Your task to perform on an android device: change the clock style Image 0: 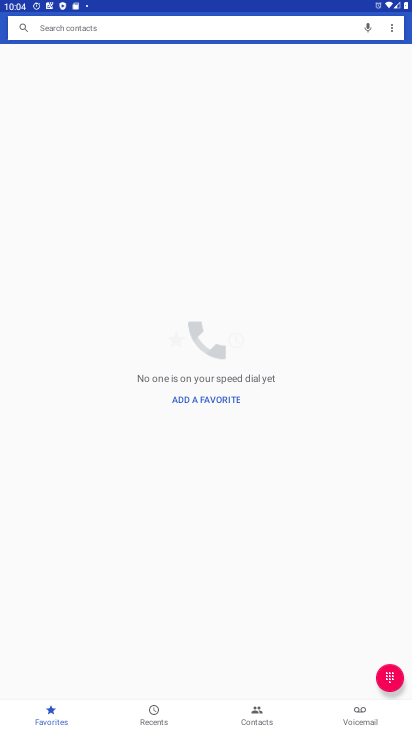
Step 0: press home button
Your task to perform on an android device: change the clock style Image 1: 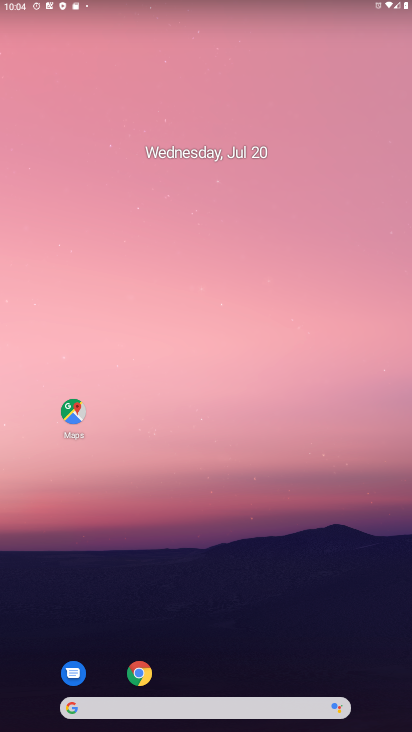
Step 1: drag from (215, 721) to (196, 169)
Your task to perform on an android device: change the clock style Image 2: 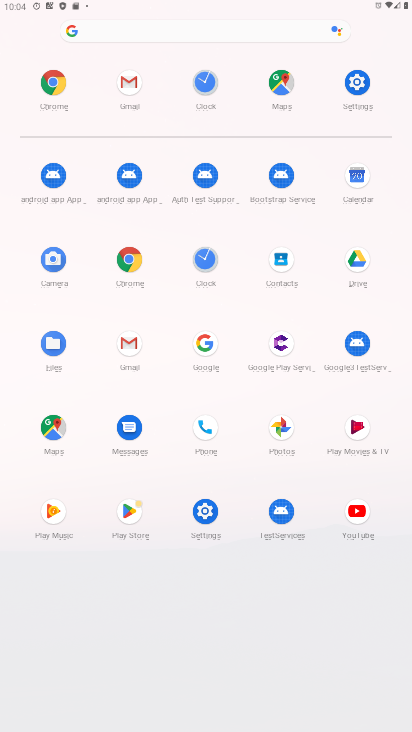
Step 2: click (208, 259)
Your task to perform on an android device: change the clock style Image 3: 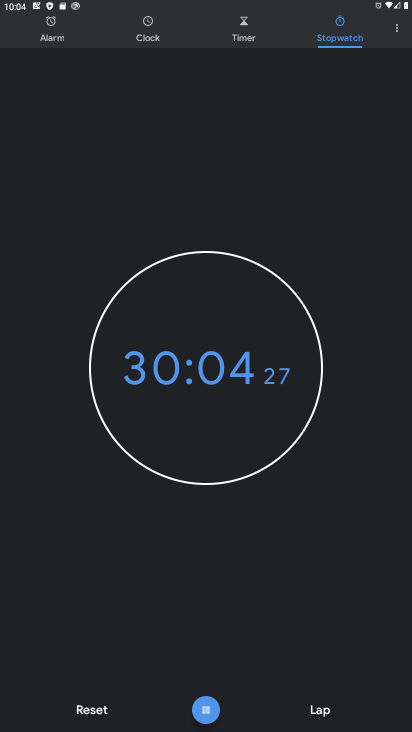
Step 3: click (399, 33)
Your task to perform on an android device: change the clock style Image 4: 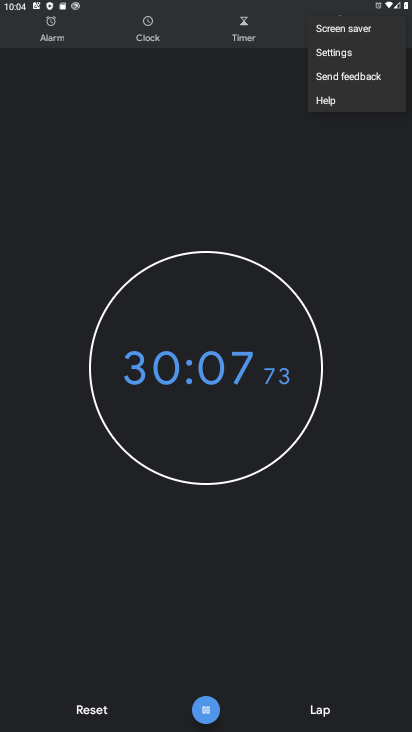
Step 4: click (334, 51)
Your task to perform on an android device: change the clock style Image 5: 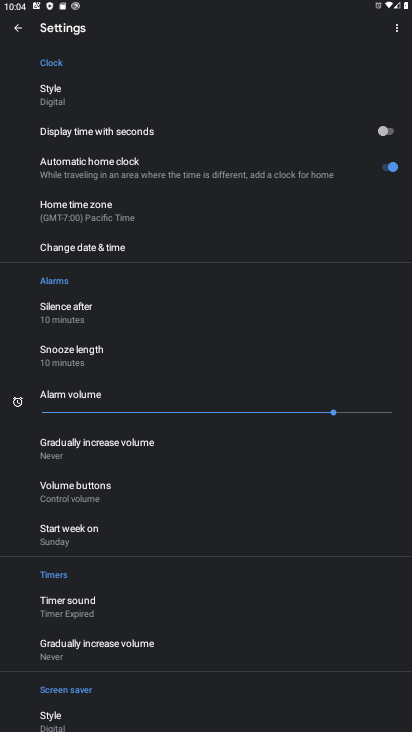
Step 5: click (50, 99)
Your task to perform on an android device: change the clock style Image 6: 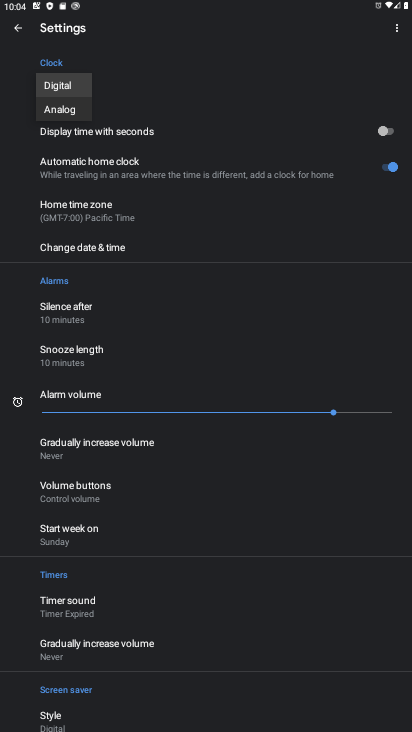
Step 6: click (52, 109)
Your task to perform on an android device: change the clock style Image 7: 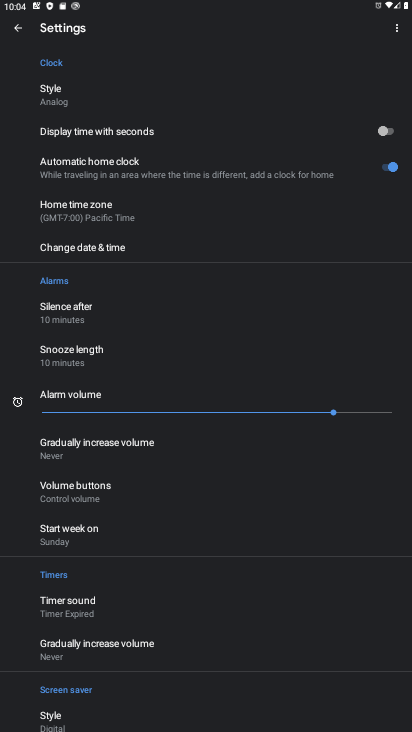
Step 7: task complete